Your task to perform on an android device: find snoozed emails in the gmail app Image 0: 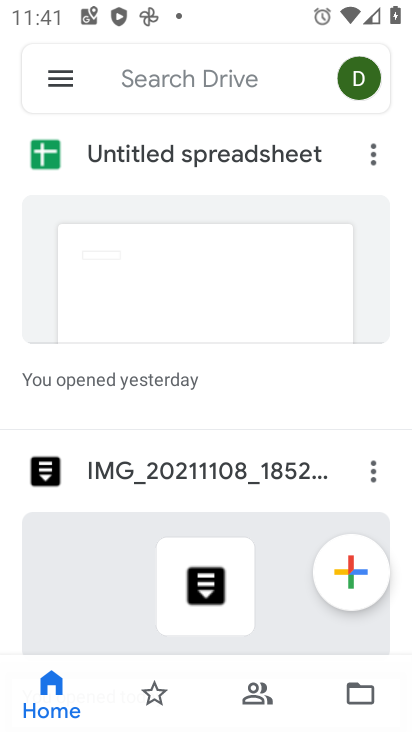
Step 0: press home button
Your task to perform on an android device: find snoozed emails in the gmail app Image 1: 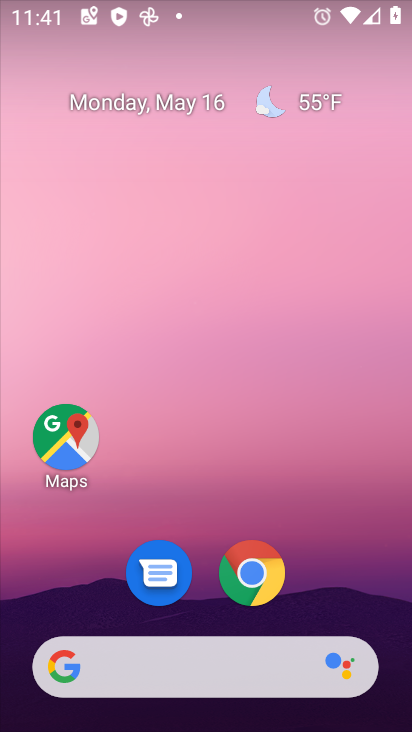
Step 1: drag from (375, 501) to (336, 118)
Your task to perform on an android device: find snoozed emails in the gmail app Image 2: 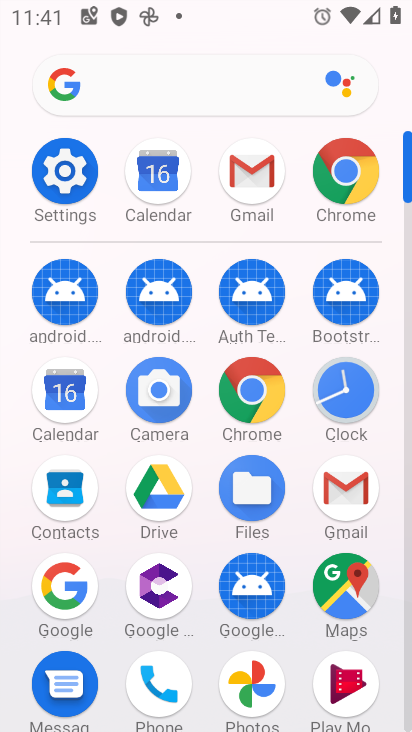
Step 2: click (335, 493)
Your task to perform on an android device: find snoozed emails in the gmail app Image 3: 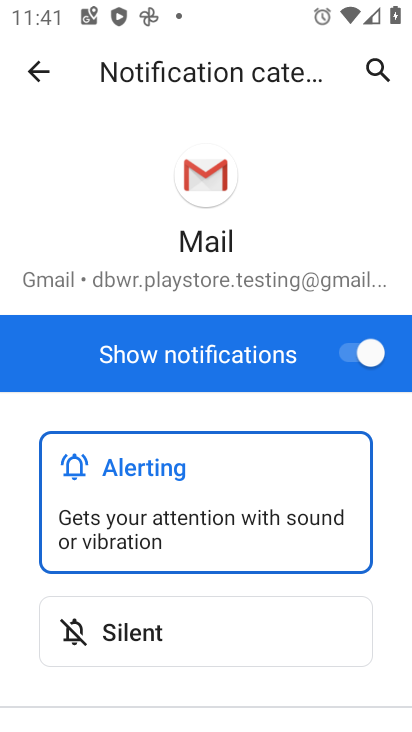
Step 3: click (43, 72)
Your task to perform on an android device: find snoozed emails in the gmail app Image 4: 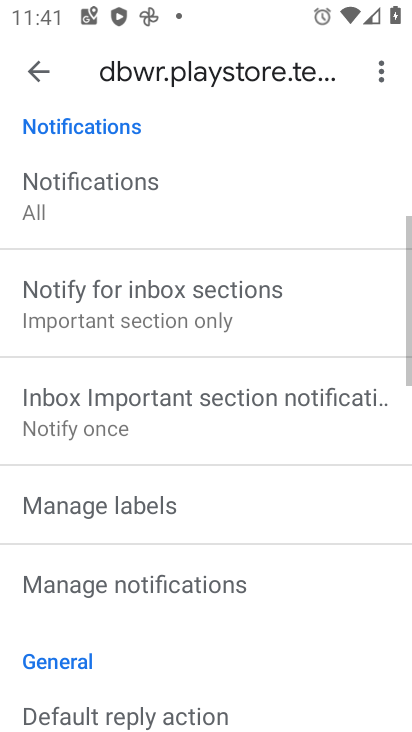
Step 4: click (43, 72)
Your task to perform on an android device: find snoozed emails in the gmail app Image 5: 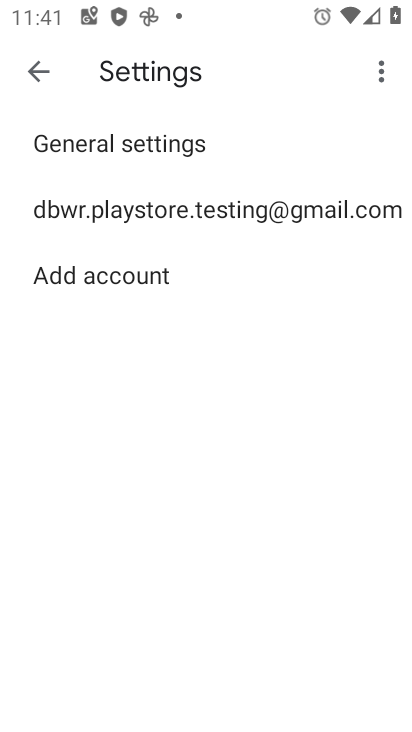
Step 5: click (43, 72)
Your task to perform on an android device: find snoozed emails in the gmail app Image 6: 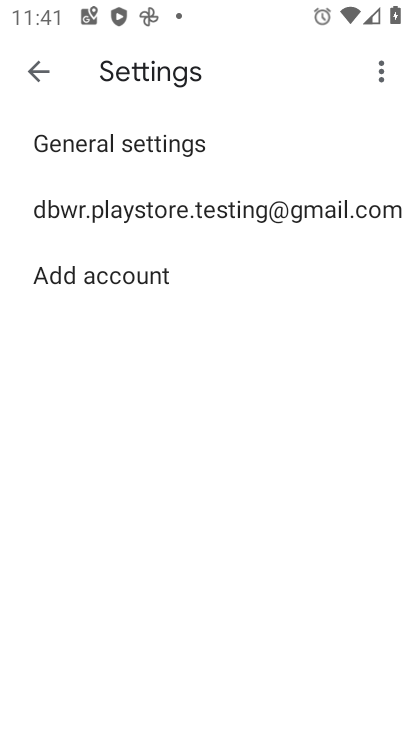
Step 6: click (43, 72)
Your task to perform on an android device: find snoozed emails in the gmail app Image 7: 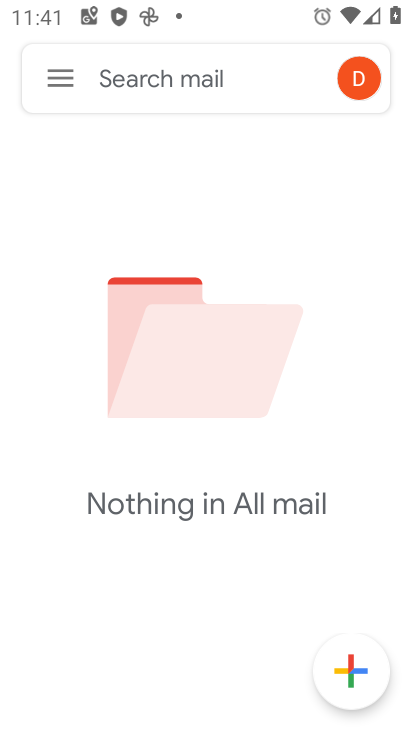
Step 7: click (54, 80)
Your task to perform on an android device: find snoozed emails in the gmail app Image 8: 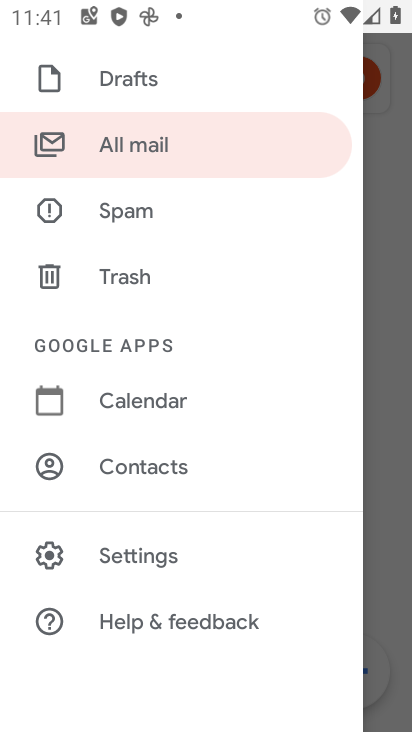
Step 8: drag from (166, 221) to (237, 708)
Your task to perform on an android device: find snoozed emails in the gmail app Image 9: 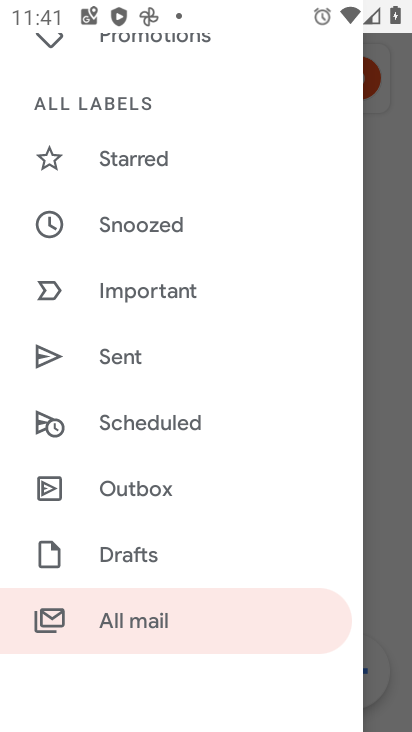
Step 9: click (201, 231)
Your task to perform on an android device: find snoozed emails in the gmail app Image 10: 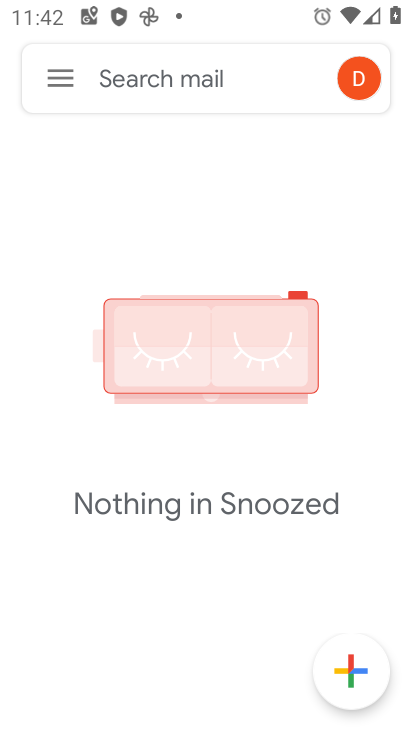
Step 10: task complete